Your task to perform on an android device: allow cookies in the chrome app Image 0: 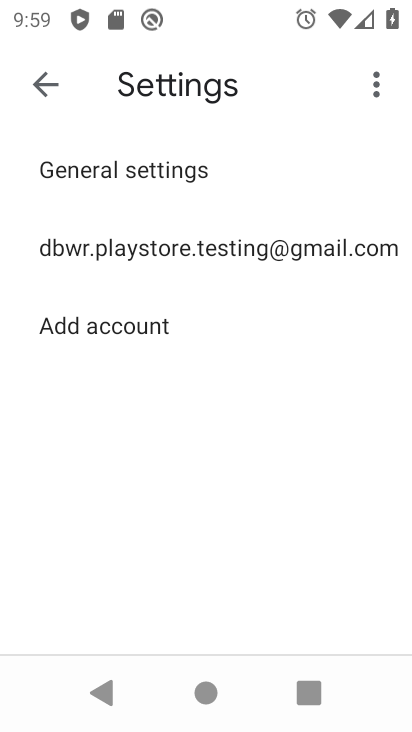
Step 0: click (38, 80)
Your task to perform on an android device: allow cookies in the chrome app Image 1: 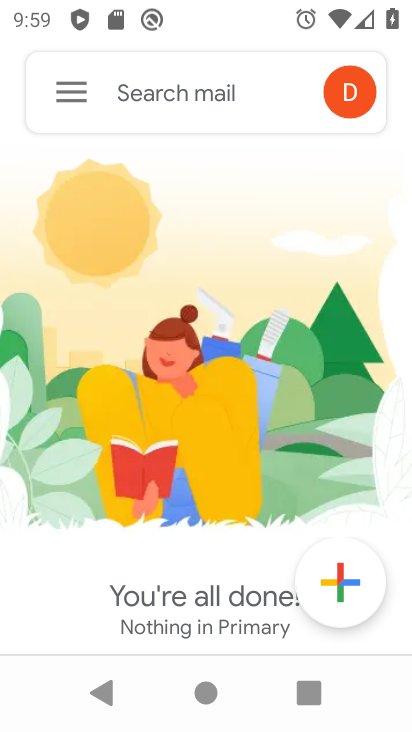
Step 1: press home button
Your task to perform on an android device: allow cookies in the chrome app Image 2: 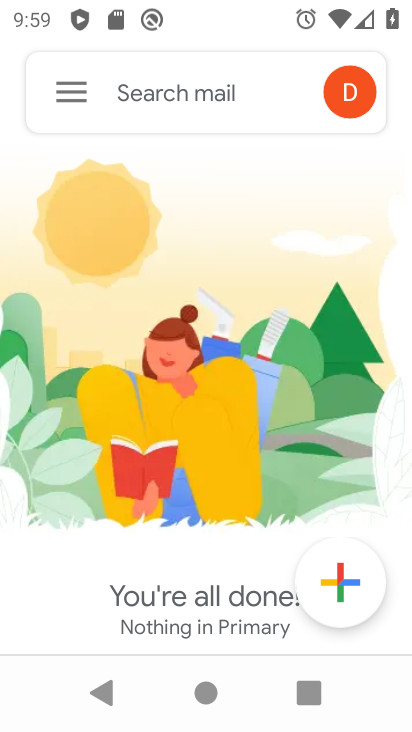
Step 2: press home button
Your task to perform on an android device: allow cookies in the chrome app Image 3: 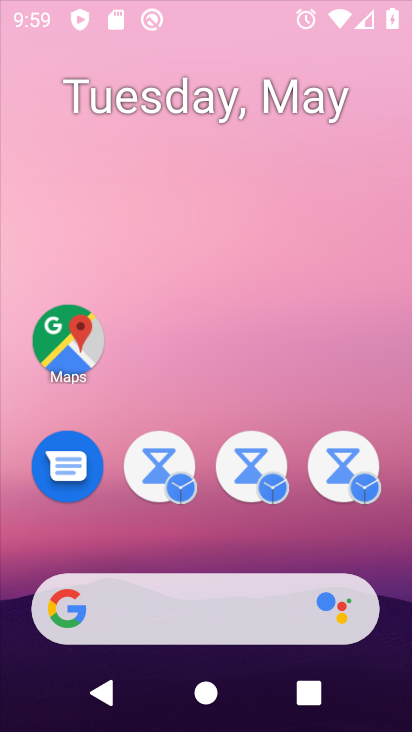
Step 3: press home button
Your task to perform on an android device: allow cookies in the chrome app Image 4: 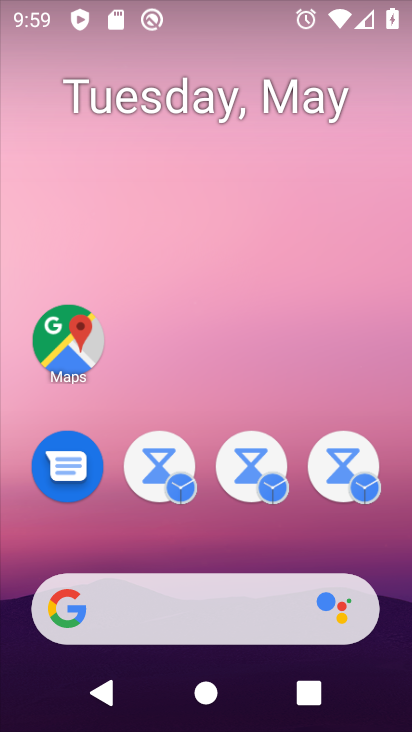
Step 4: press home button
Your task to perform on an android device: allow cookies in the chrome app Image 5: 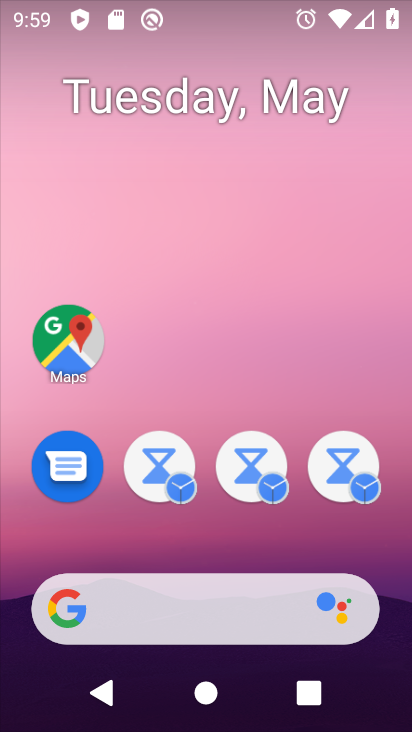
Step 5: drag from (337, 601) to (174, 60)
Your task to perform on an android device: allow cookies in the chrome app Image 6: 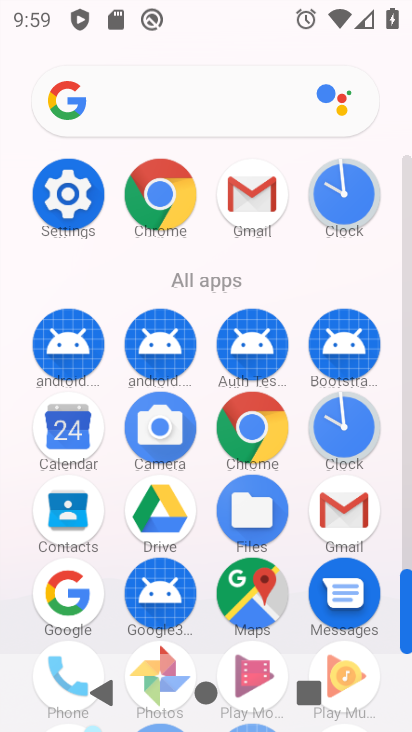
Step 6: click (144, 193)
Your task to perform on an android device: allow cookies in the chrome app Image 7: 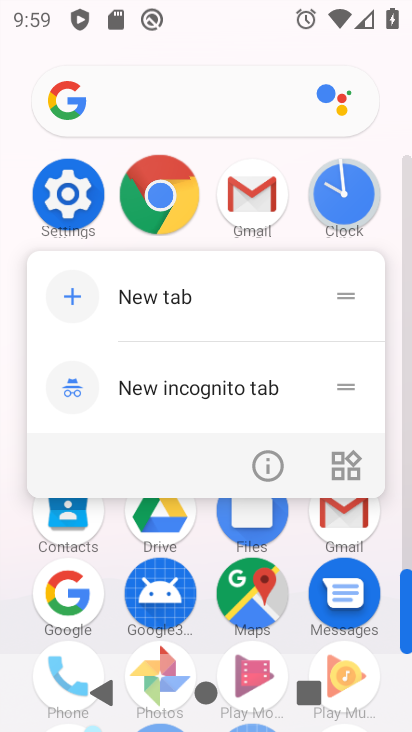
Step 7: click (150, 190)
Your task to perform on an android device: allow cookies in the chrome app Image 8: 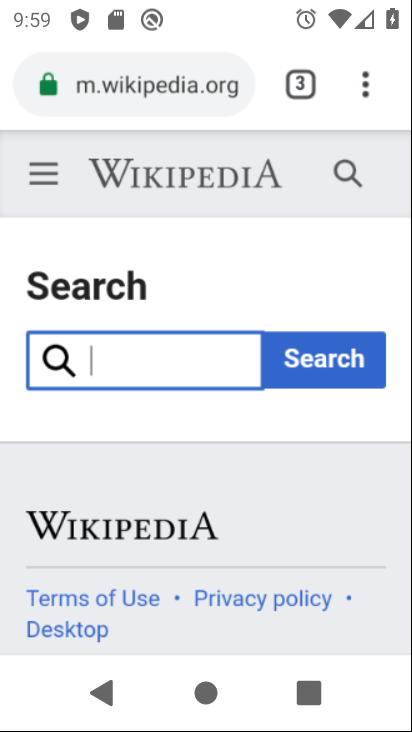
Step 8: click (161, 188)
Your task to perform on an android device: allow cookies in the chrome app Image 9: 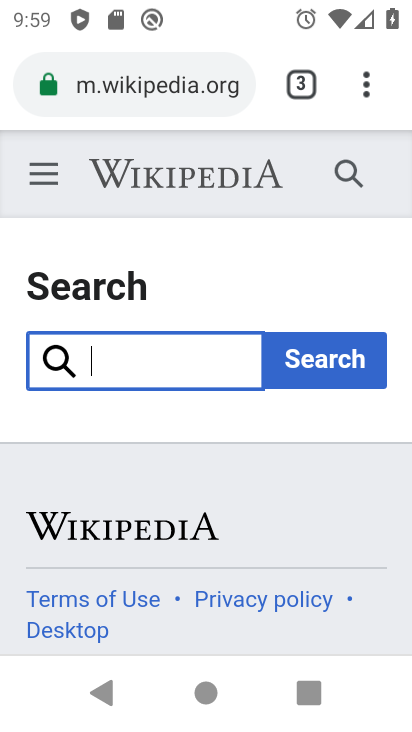
Step 9: drag from (367, 87) to (303, 62)
Your task to perform on an android device: allow cookies in the chrome app Image 10: 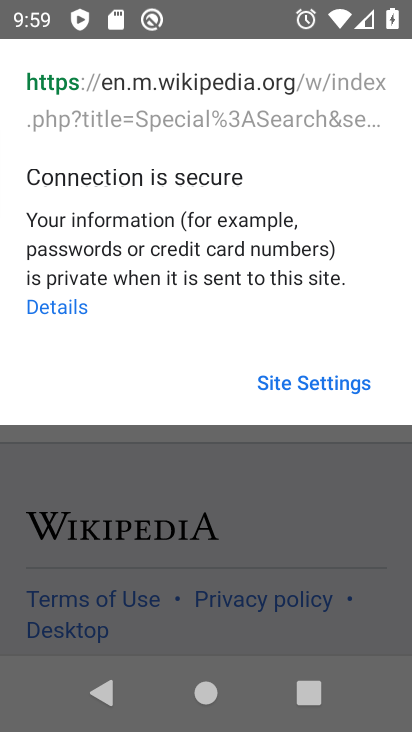
Step 10: drag from (321, 501) to (334, 179)
Your task to perform on an android device: allow cookies in the chrome app Image 11: 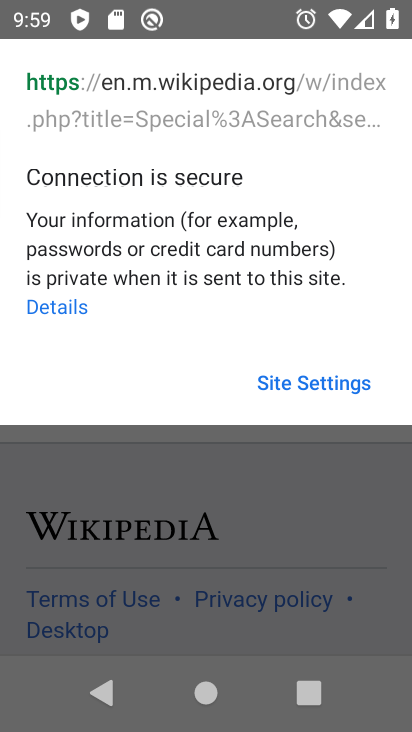
Step 11: drag from (297, 435) to (296, 184)
Your task to perform on an android device: allow cookies in the chrome app Image 12: 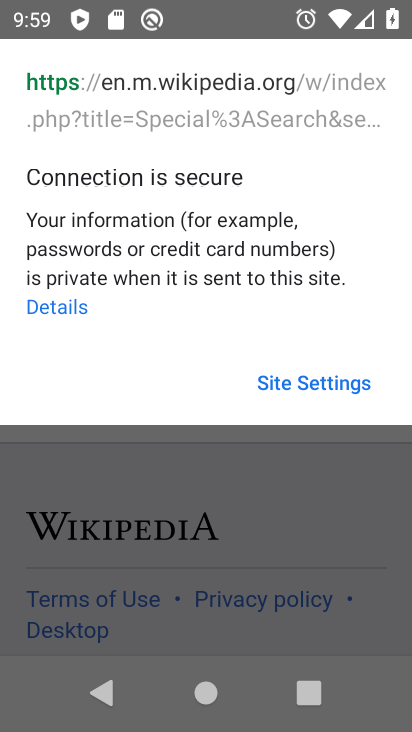
Step 12: drag from (287, 488) to (286, 138)
Your task to perform on an android device: allow cookies in the chrome app Image 13: 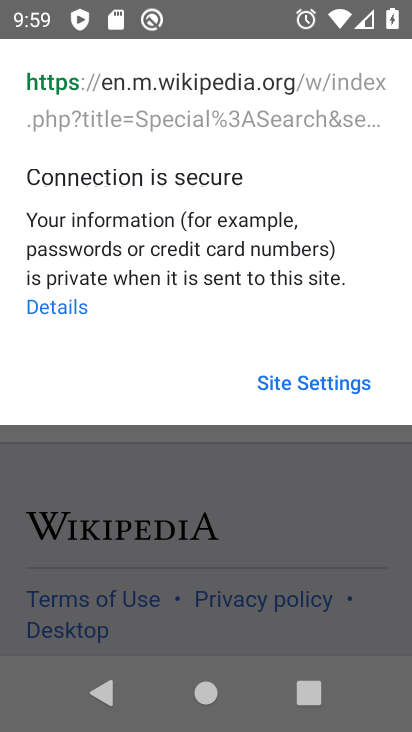
Step 13: drag from (327, 459) to (347, 76)
Your task to perform on an android device: allow cookies in the chrome app Image 14: 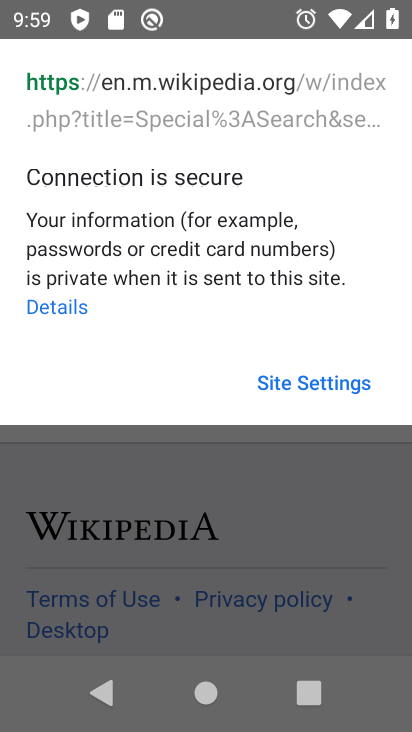
Step 14: click (312, 497)
Your task to perform on an android device: allow cookies in the chrome app Image 15: 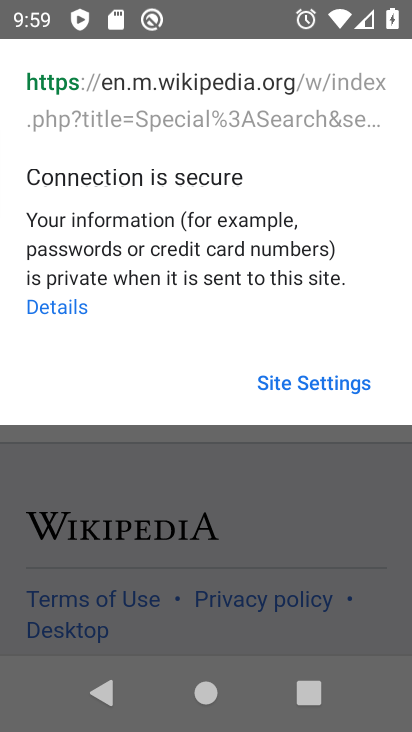
Step 15: click (312, 497)
Your task to perform on an android device: allow cookies in the chrome app Image 16: 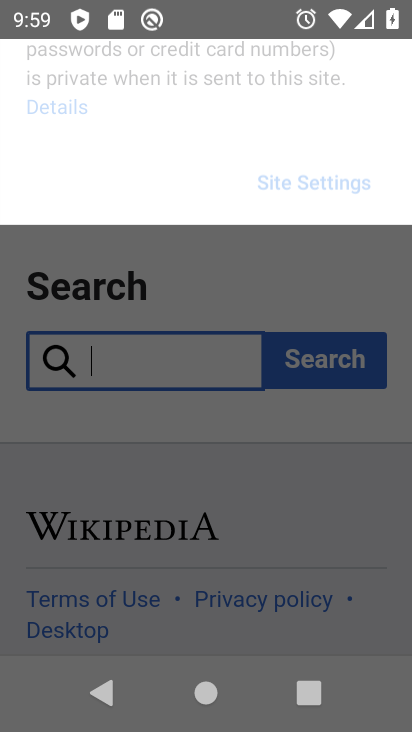
Step 16: click (318, 500)
Your task to perform on an android device: allow cookies in the chrome app Image 17: 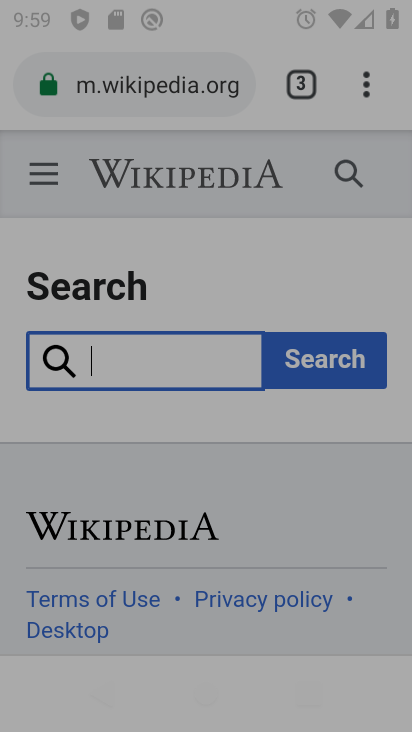
Step 17: click (320, 500)
Your task to perform on an android device: allow cookies in the chrome app Image 18: 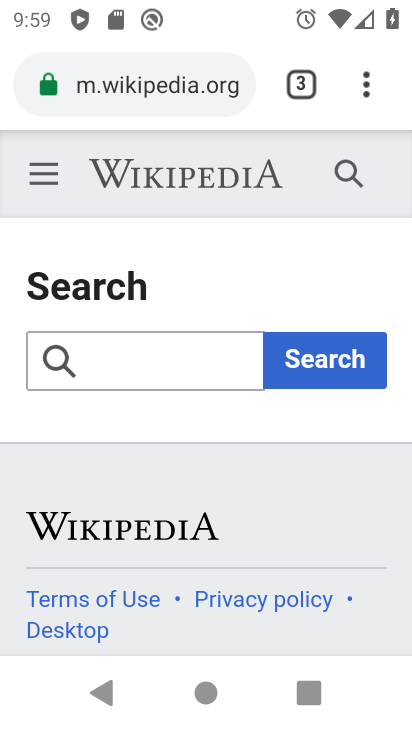
Step 18: drag from (363, 80) to (97, 518)
Your task to perform on an android device: allow cookies in the chrome app Image 19: 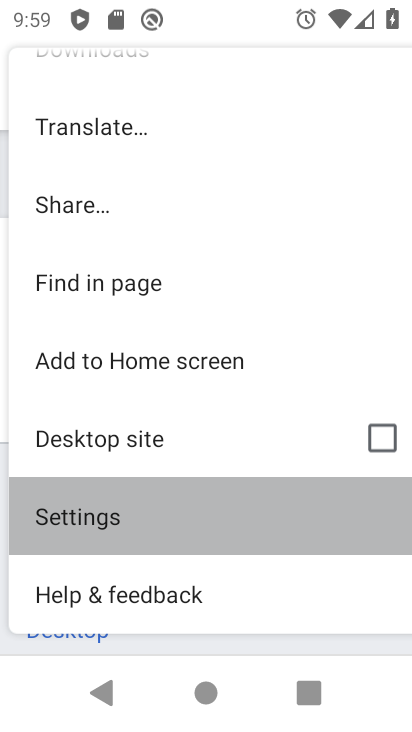
Step 19: click (94, 519)
Your task to perform on an android device: allow cookies in the chrome app Image 20: 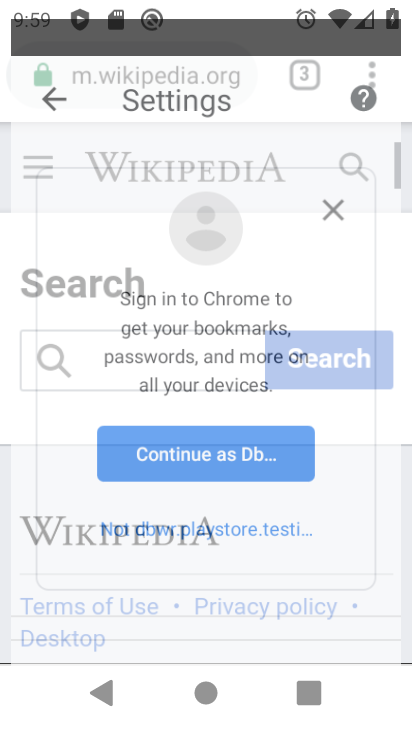
Step 20: click (93, 519)
Your task to perform on an android device: allow cookies in the chrome app Image 21: 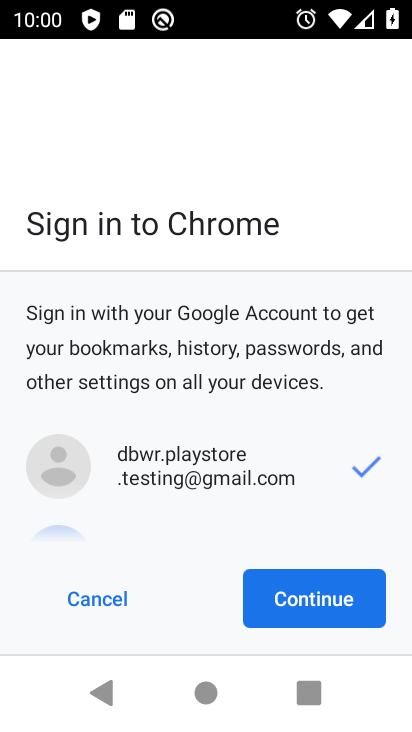
Step 21: drag from (281, 525) to (265, 203)
Your task to perform on an android device: allow cookies in the chrome app Image 22: 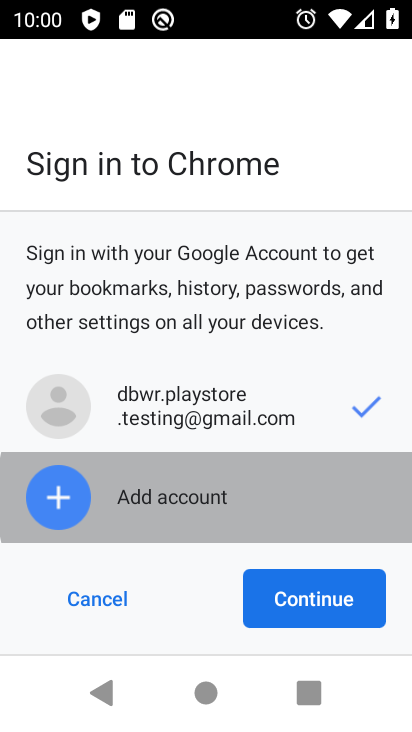
Step 22: drag from (253, 550) to (249, 162)
Your task to perform on an android device: allow cookies in the chrome app Image 23: 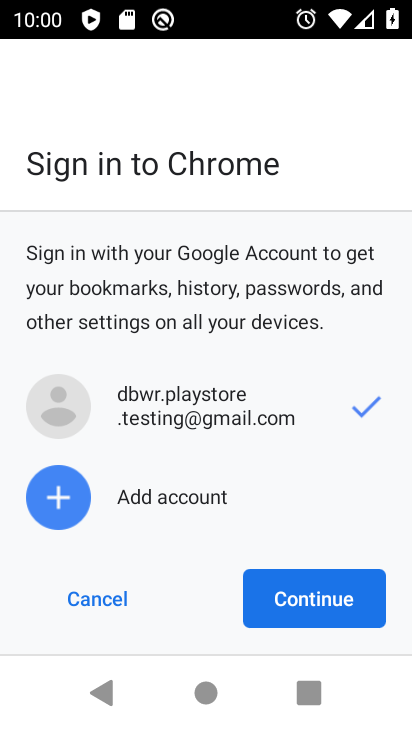
Step 23: drag from (243, 562) to (309, 172)
Your task to perform on an android device: allow cookies in the chrome app Image 24: 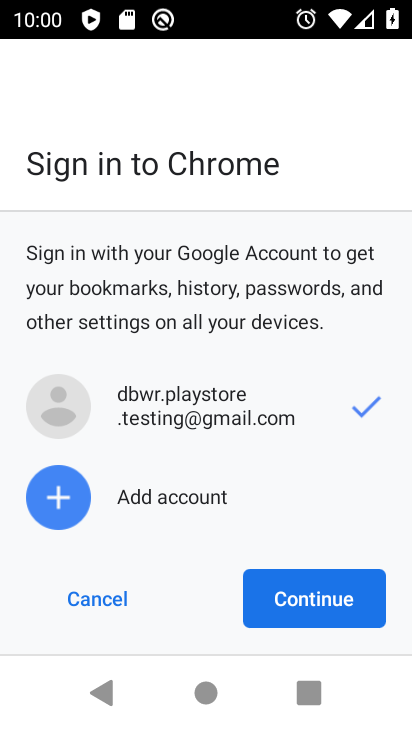
Step 24: press back button
Your task to perform on an android device: allow cookies in the chrome app Image 25: 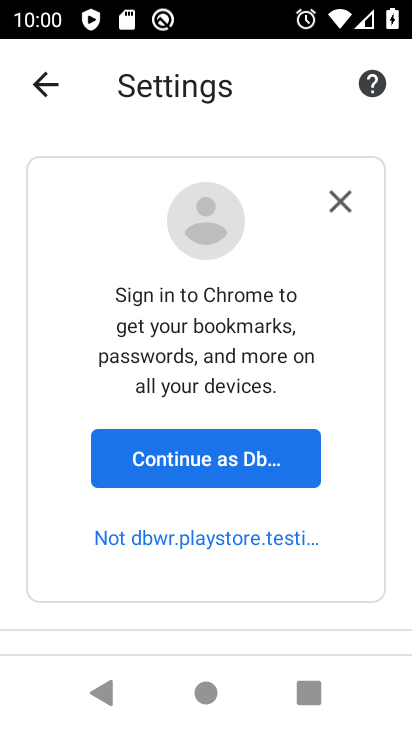
Step 25: click (61, 75)
Your task to perform on an android device: allow cookies in the chrome app Image 26: 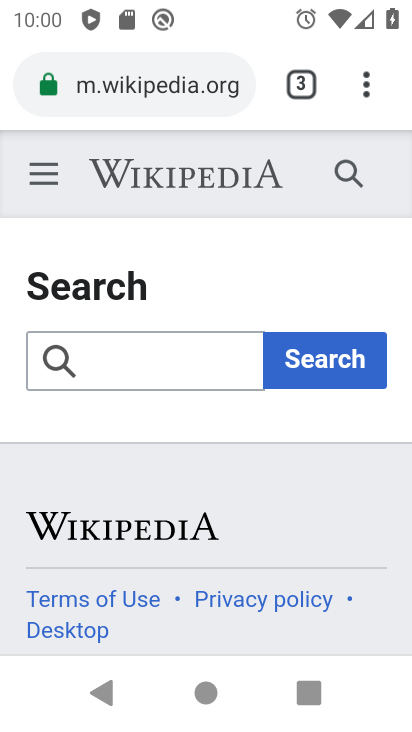
Step 26: drag from (364, 97) to (88, 509)
Your task to perform on an android device: allow cookies in the chrome app Image 27: 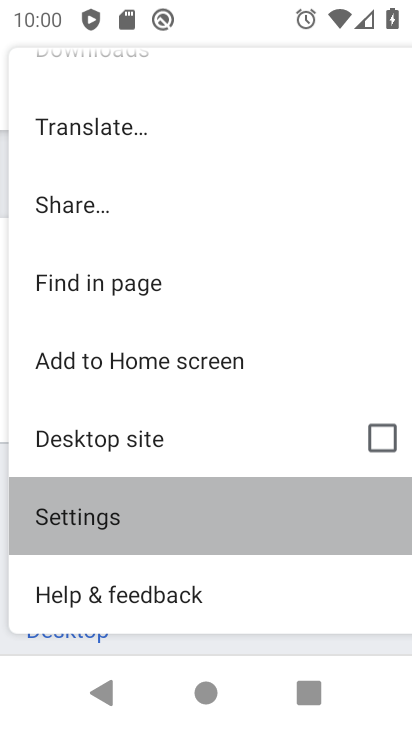
Step 27: click (92, 508)
Your task to perform on an android device: allow cookies in the chrome app Image 28: 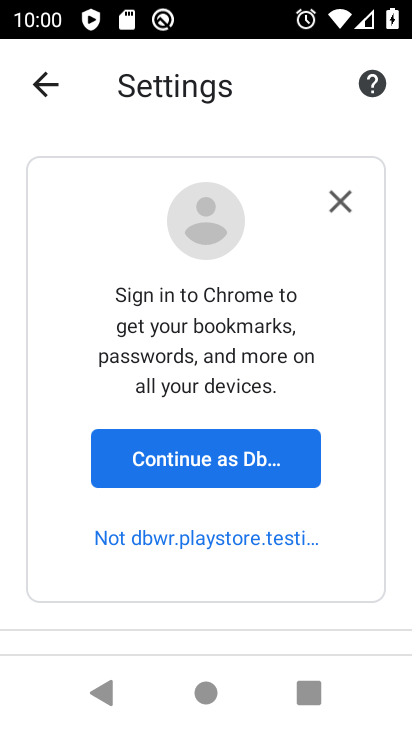
Step 28: drag from (241, 522) to (239, 128)
Your task to perform on an android device: allow cookies in the chrome app Image 29: 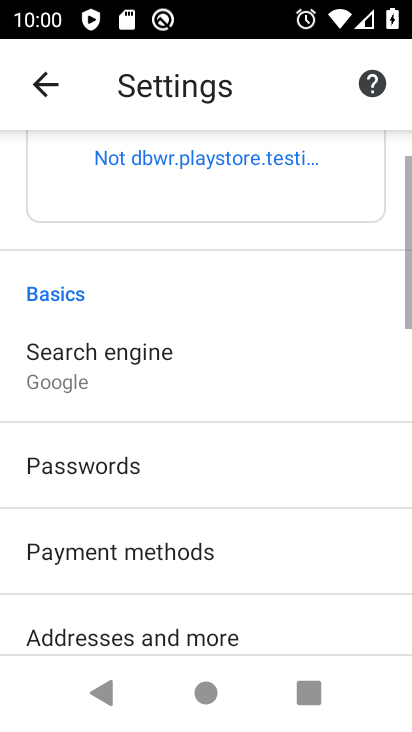
Step 29: drag from (232, 350) to (246, 78)
Your task to perform on an android device: allow cookies in the chrome app Image 30: 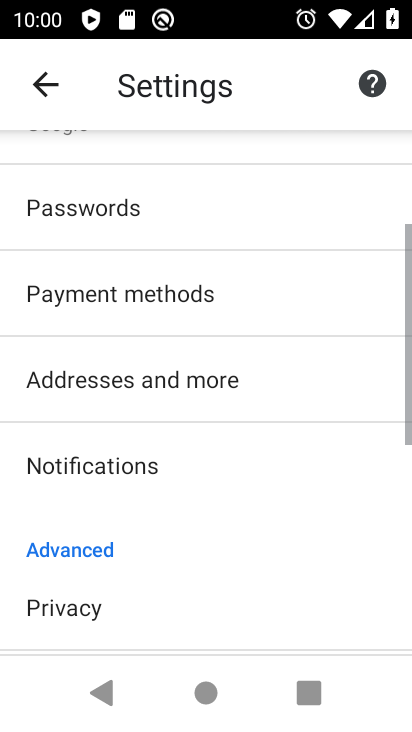
Step 30: drag from (218, 418) to (273, 112)
Your task to perform on an android device: allow cookies in the chrome app Image 31: 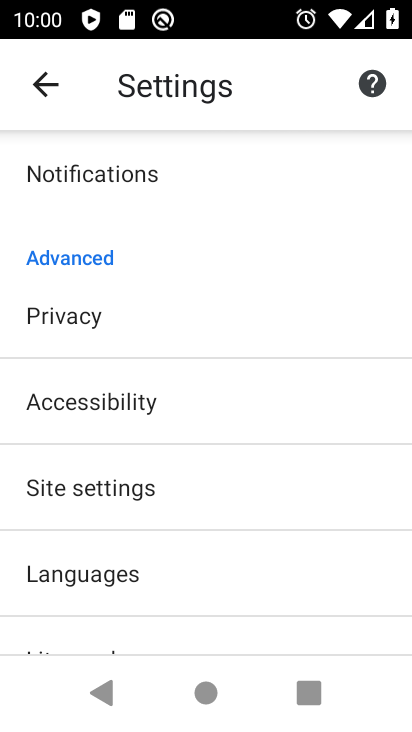
Step 31: click (88, 489)
Your task to perform on an android device: allow cookies in the chrome app Image 32: 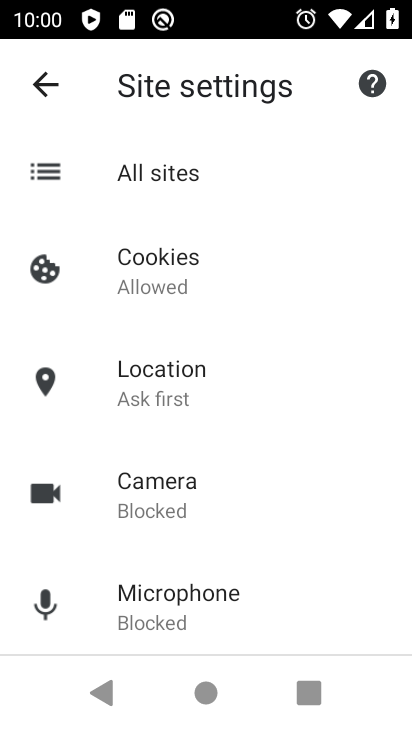
Step 32: click (142, 259)
Your task to perform on an android device: allow cookies in the chrome app Image 33: 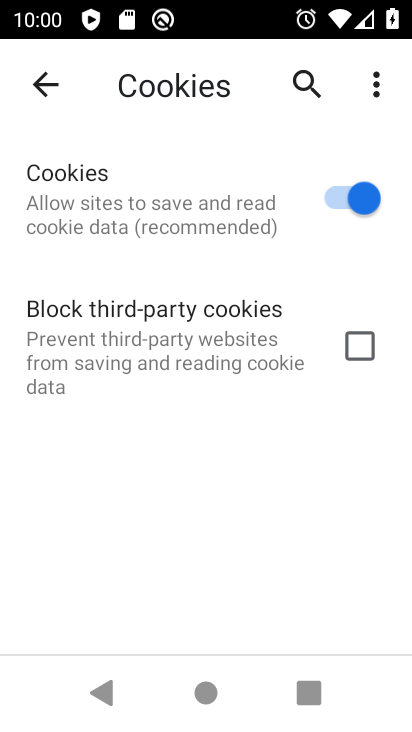
Step 33: task complete